Your task to perform on an android device: toggle location history Image 0: 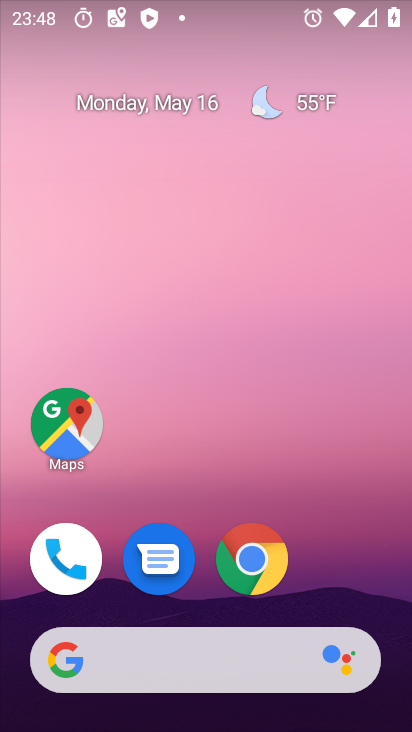
Step 0: drag from (337, 494) to (327, 108)
Your task to perform on an android device: toggle location history Image 1: 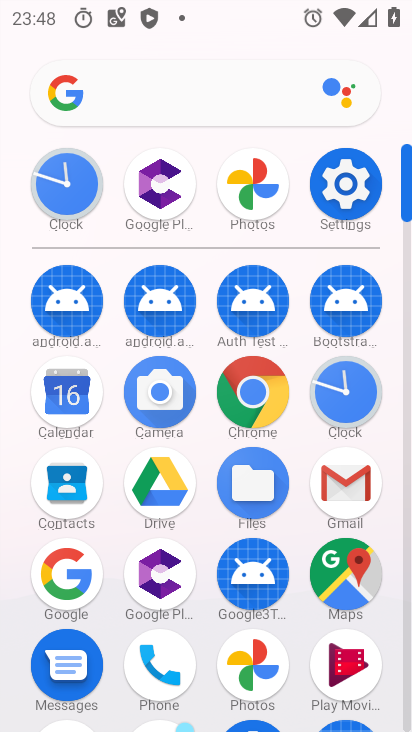
Step 1: click (346, 178)
Your task to perform on an android device: toggle location history Image 2: 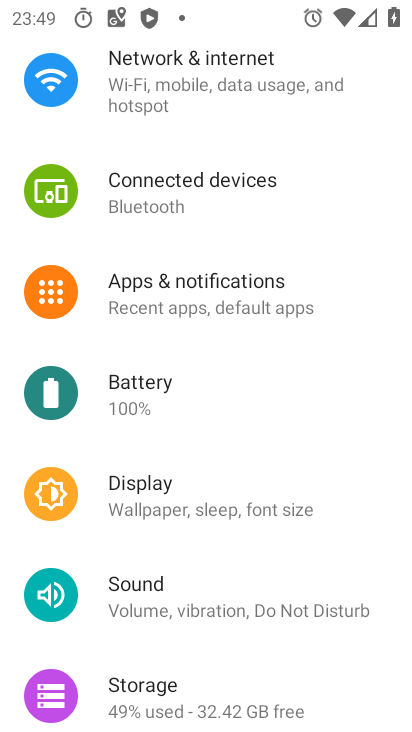
Step 2: drag from (211, 282) to (242, 697)
Your task to perform on an android device: toggle location history Image 3: 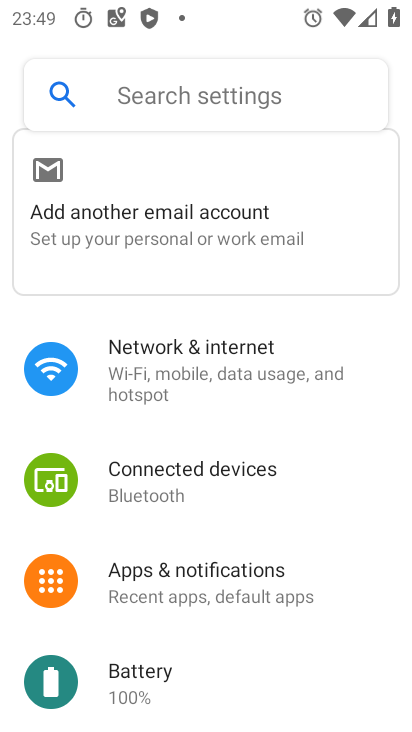
Step 3: drag from (174, 625) to (225, 258)
Your task to perform on an android device: toggle location history Image 4: 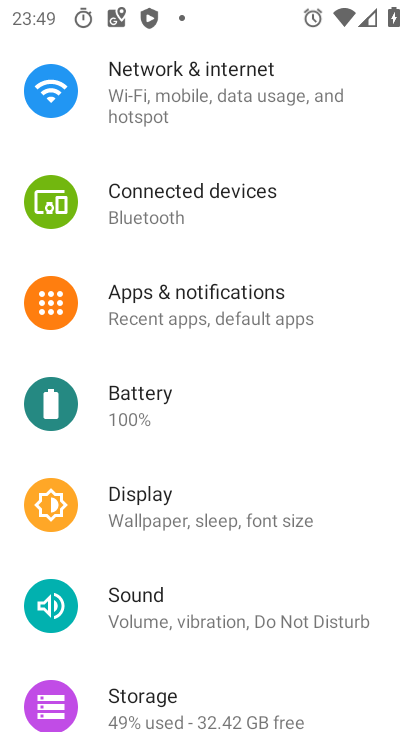
Step 4: drag from (226, 535) to (285, 228)
Your task to perform on an android device: toggle location history Image 5: 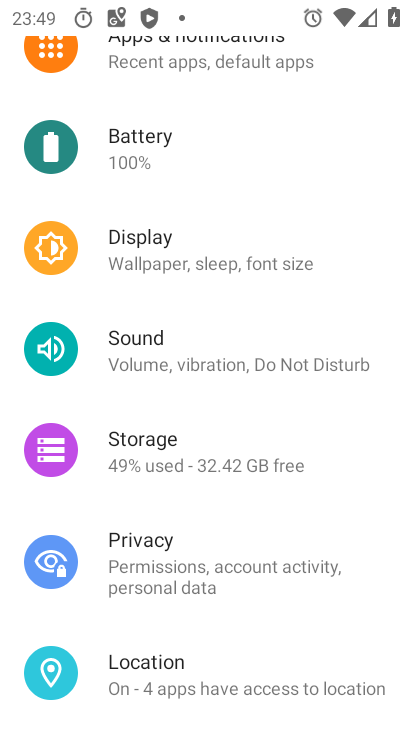
Step 5: click (172, 673)
Your task to perform on an android device: toggle location history Image 6: 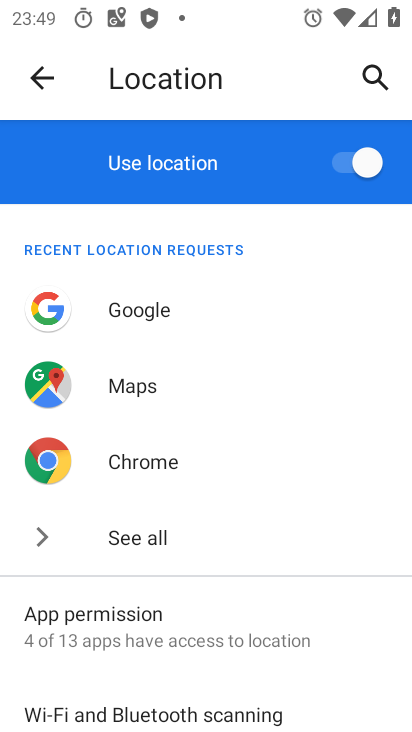
Step 6: drag from (260, 594) to (285, 200)
Your task to perform on an android device: toggle location history Image 7: 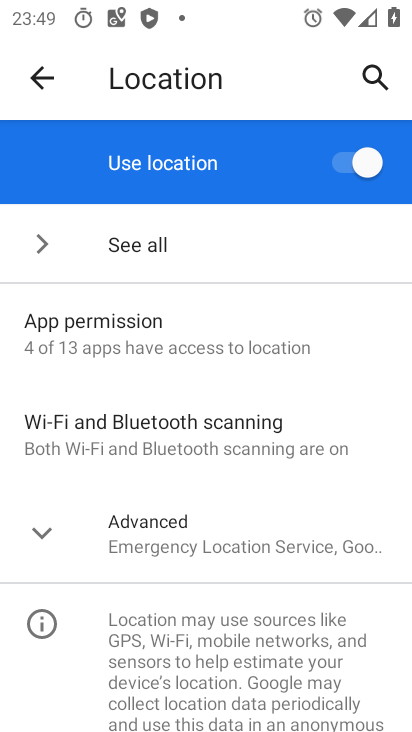
Step 7: click (173, 538)
Your task to perform on an android device: toggle location history Image 8: 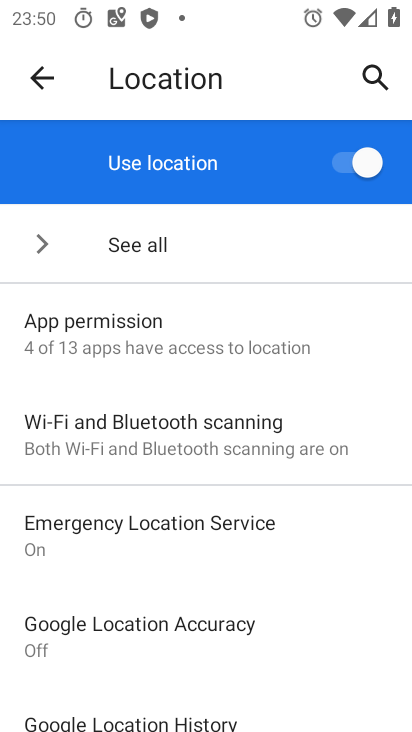
Step 8: click (212, 724)
Your task to perform on an android device: toggle location history Image 9: 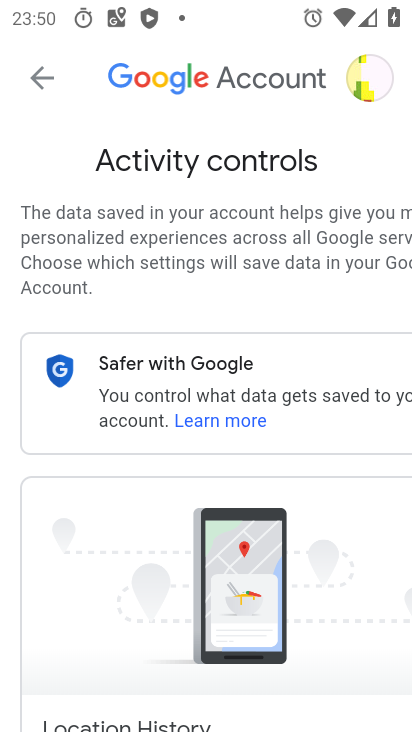
Step 9: drag from (236, 522) to (270, 9)
Your task to perform on an android device: toggle location history Image 10: 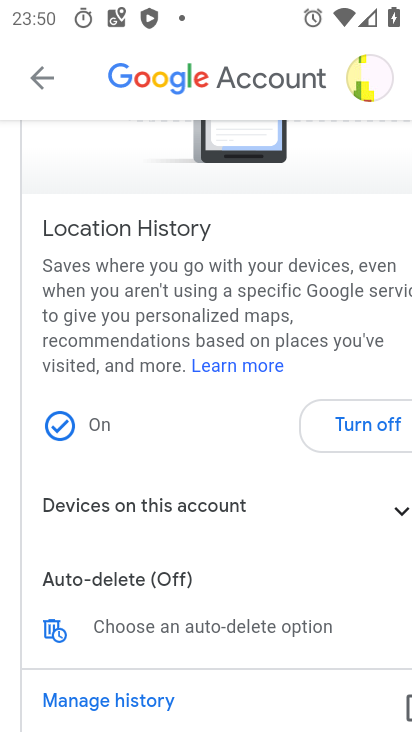
Step 10: click (372, 418)
Your task to perform on an android device: toggle location history Image 11: 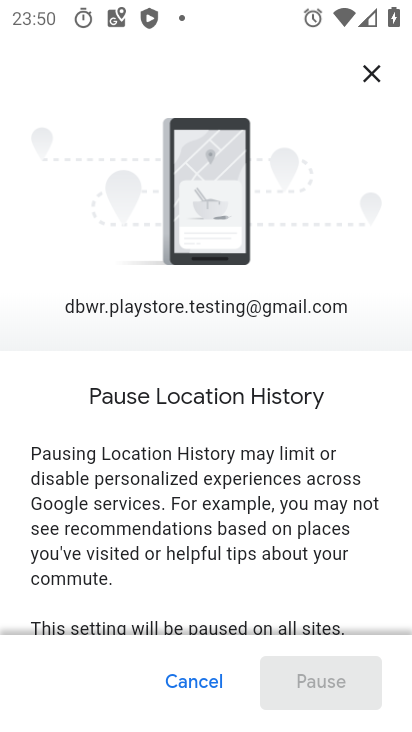
Step 11: drag from (228, 550) to (206, 36)
Your task to perform on an android device: toggle location history Image 12: 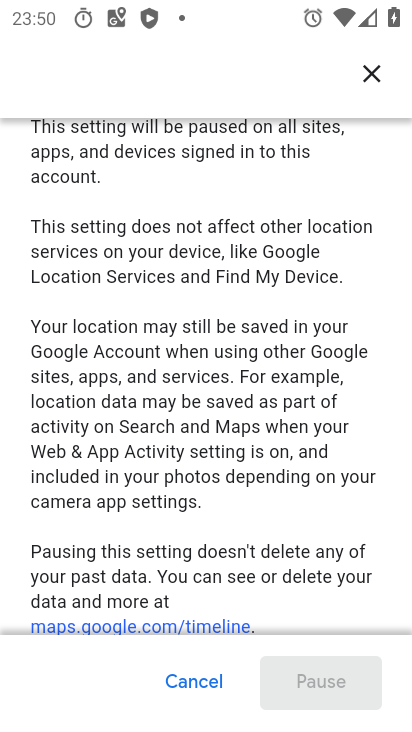
Step 12: drag from (163, 532) to (197, 56)
Your task to perform on an android device: toggle location history Image 13: 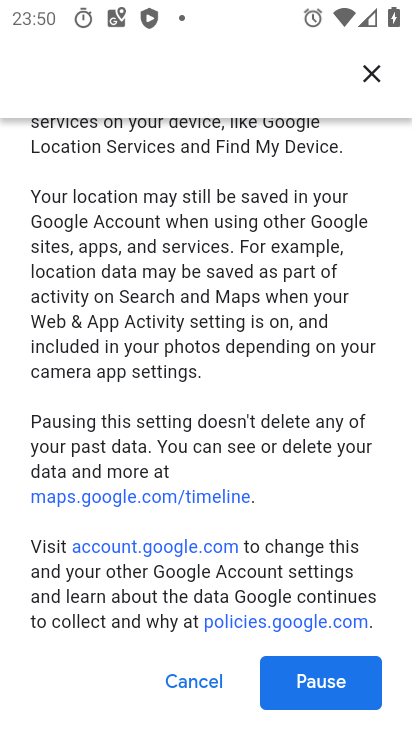
Step 13: drag from (192, 523) to (214, 74)
Your task to perform on an android device: toggle location history Image 14: 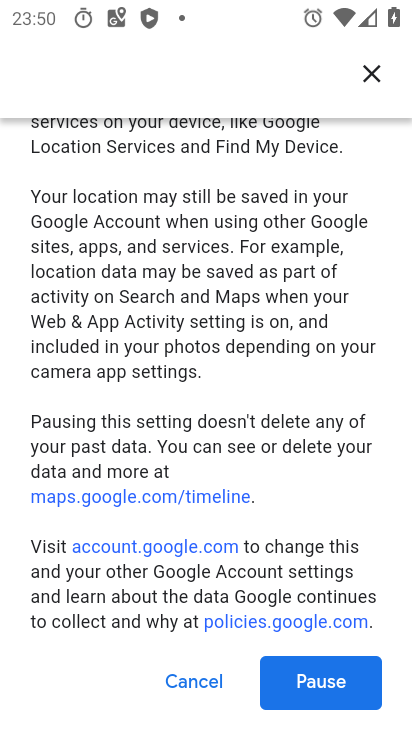
Step 14: click (305, 677)
Your task to perform on an android device: toggle location history Image 15: 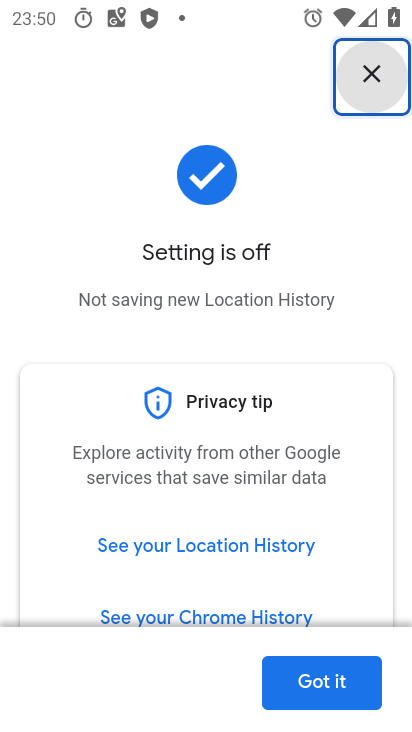
Step 15: task complete